Your task to perform on an android device: Clear all items from cart on newegg.com. Search for "razer blade" on newegg.com, select the first entry, and add it to the cart. Image 0: 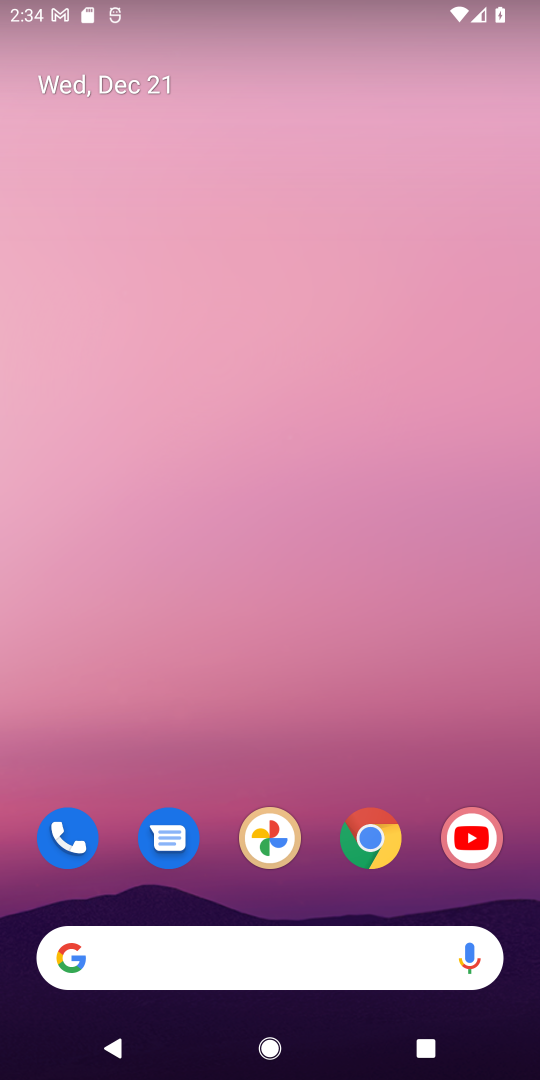
Step 0: click (362, 855)
Your task to perform on an android device: Clear all items from cart on newegg.com. Search for "razer blade" on newegg.com, select the first entry, and add it to the cart. Image 1: 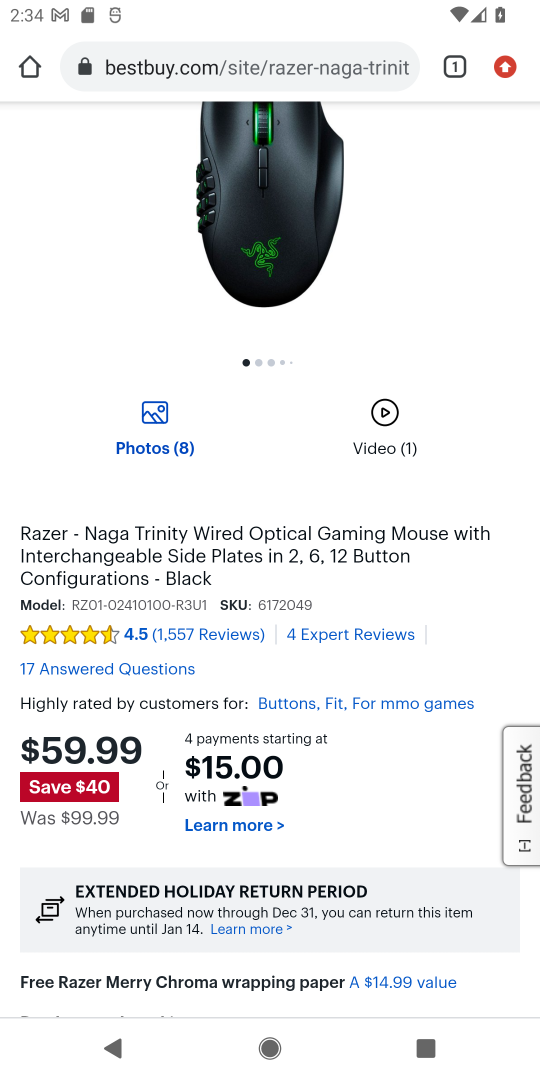
Step 1: click (217, 86)
Your task to perform on an android device: Clear all items from cart on newegg.com. Search for "razer blade" on newegg.com, select the first entry, and add it to the cart. Image 2: 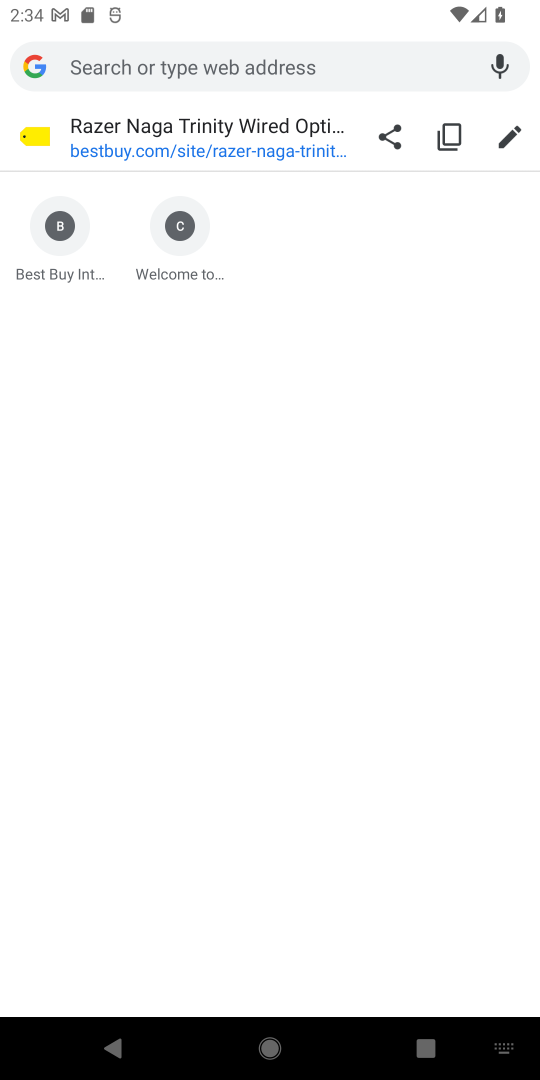
Step 2: type "newegg"
Your task to perform on an android device: Clear all items from cart on newegg.com. Search for "razer blade" on newegg.com, select the first entry, and add it to the cart. Image 3: 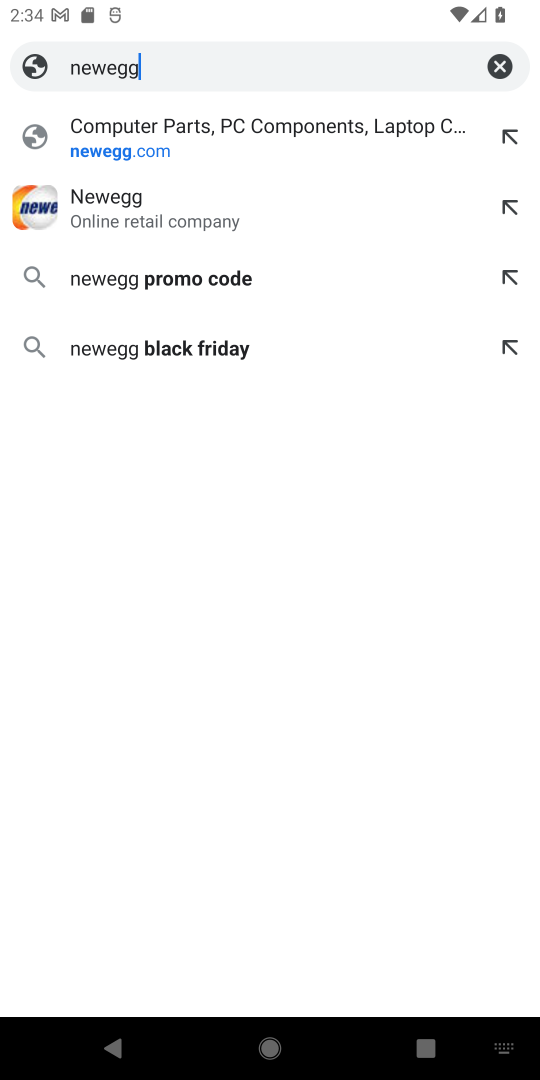
Step 3: click (188, 160)
Your task to perform on an android device: Clear all items from cart on newegg.com. Search for "razer blade" on newegg.com, select the first entry, and add it to the cart. Image 4: 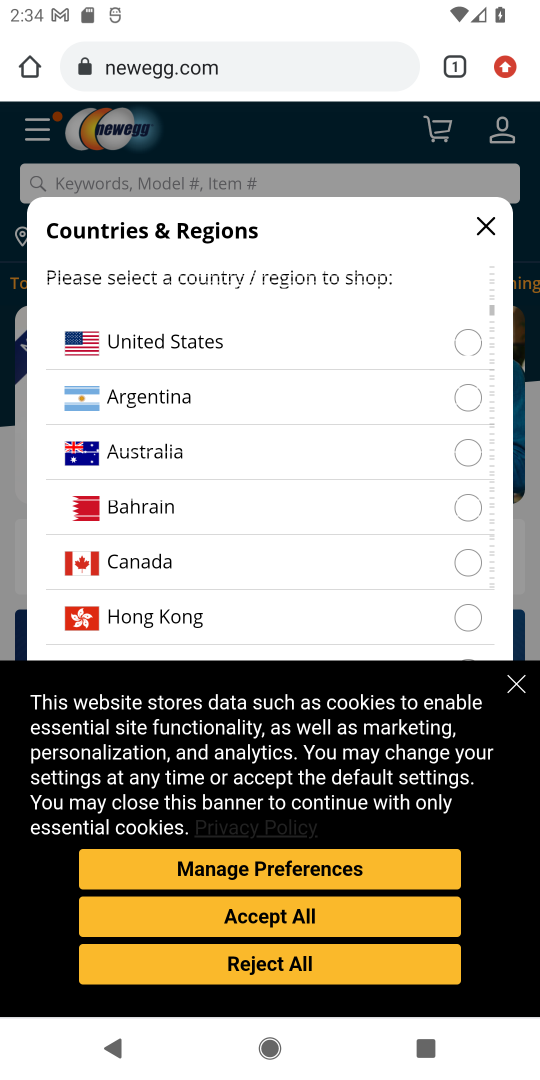
Step 4: click (325, 925)
Your task to perform on an android device: Clear all items from cart on newegg.com. Search for "razer blade" on newegg.com, select the first entry, and add it to the cart. Image 5: 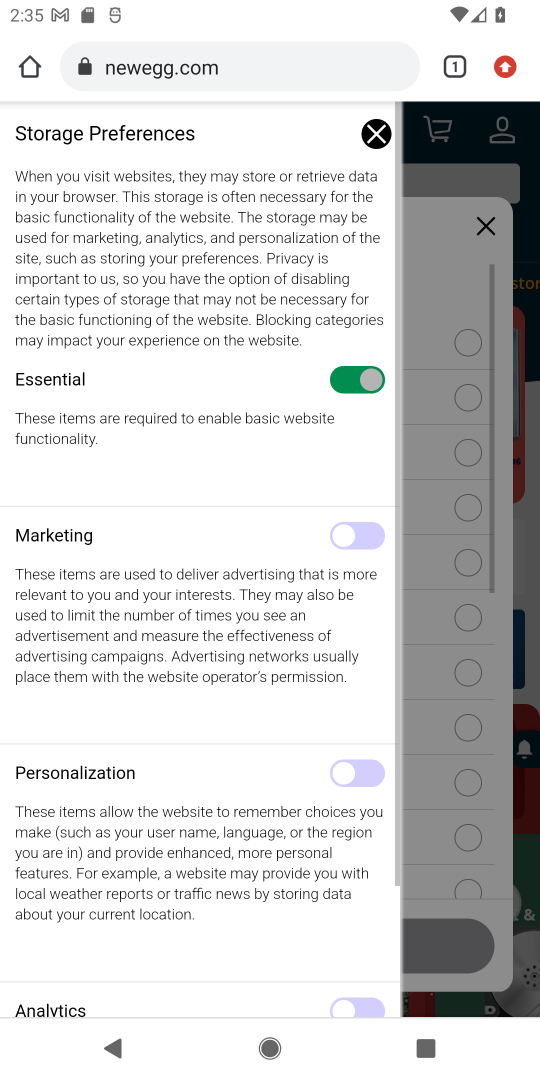
Step 5: task complete